Your task to perform on an android device: Is it going to rain this weekend? Image 0: 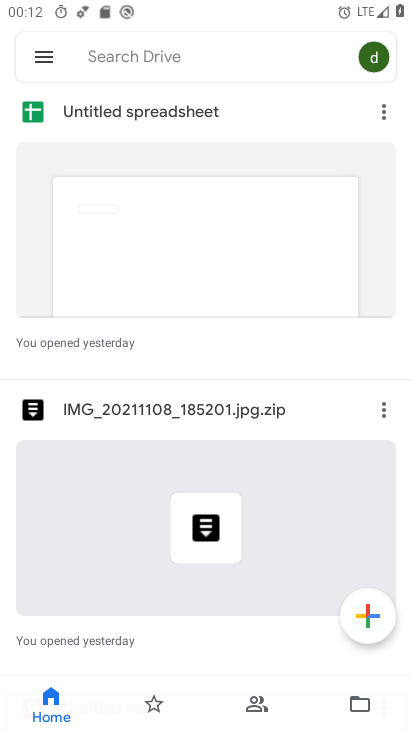
Step 0: press back button
Your task to perform on an android device: Is it going to rain this weekend? Image 1: 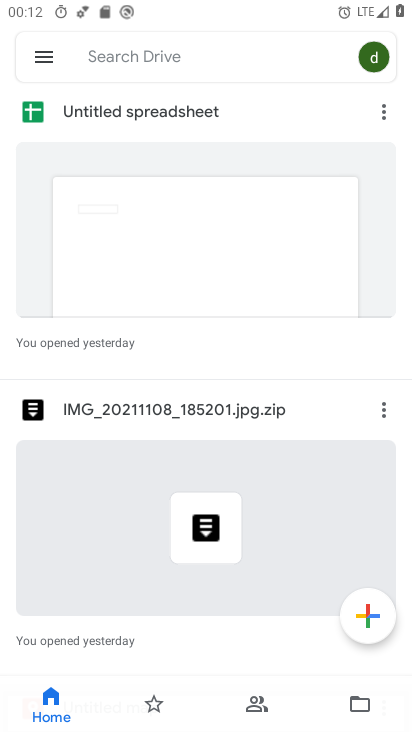
Step 1: press back button
Your task to perform on an android device: Is it going to rain this weekend? Image 2: 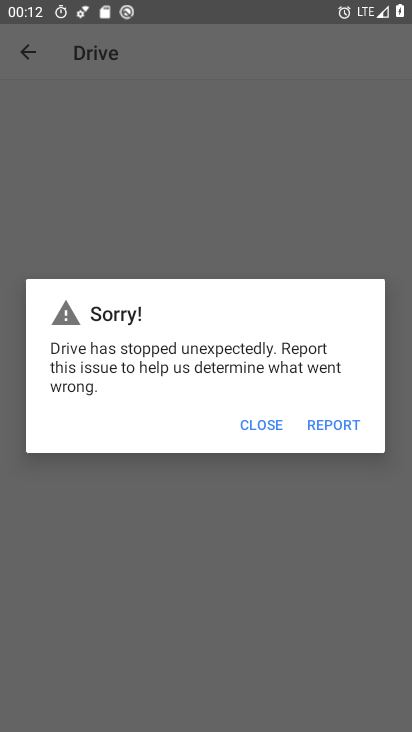
Step 2: press back button
Your task to perform on an android device: Is it going to rain this weekend? Image 3: 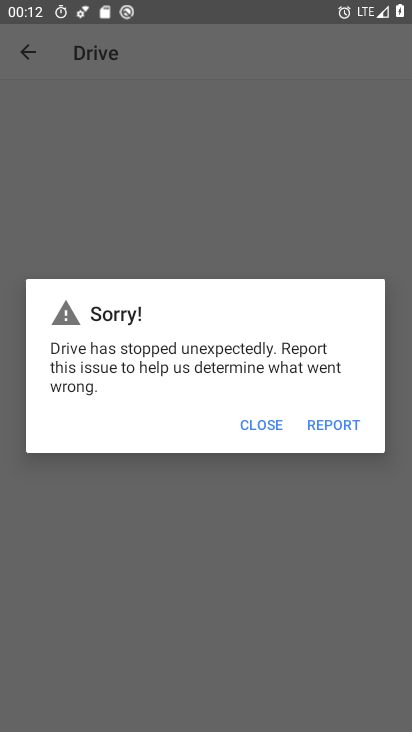
Step 3: press back button
Your task to perform on an android device: Is it going to rain this weekend? Image 4: 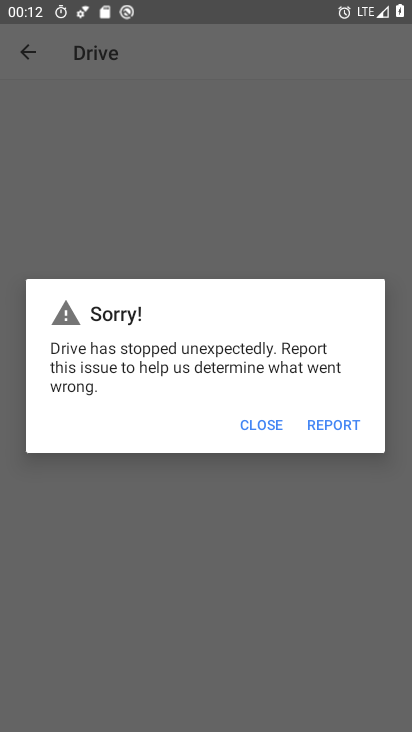
Step 4: press back button
Your task to perform on an android device: Is it going to rain this weekend? Image 5: 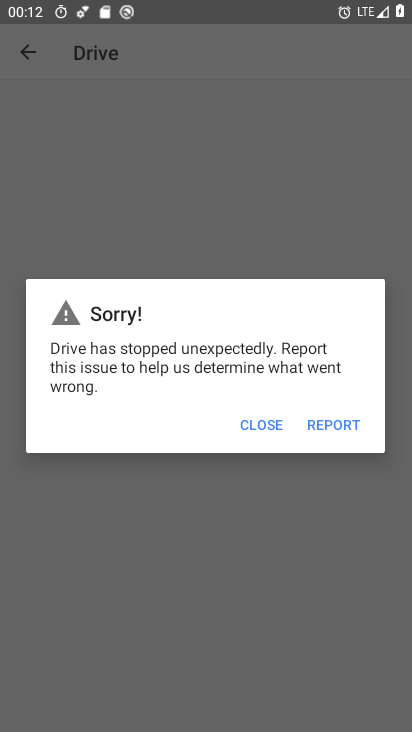
Step 5: click (266, 423)
Your task to perform on an android device: Is it going to rain this weekend? Image 6: 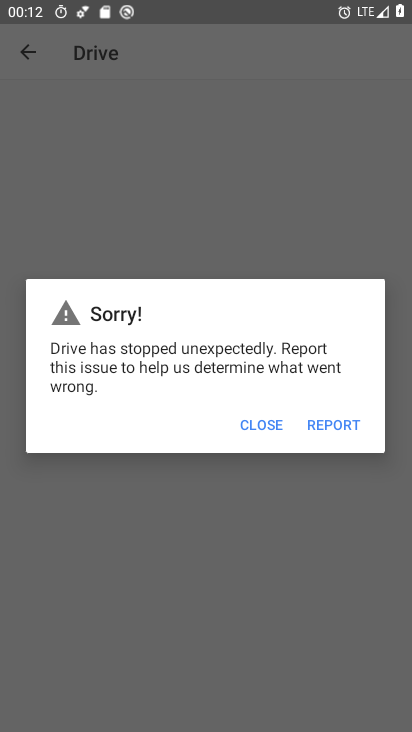
Step 6: click (266, 423)
Your task to perform on an android device: Is it going to rain this weekend? Image 7: 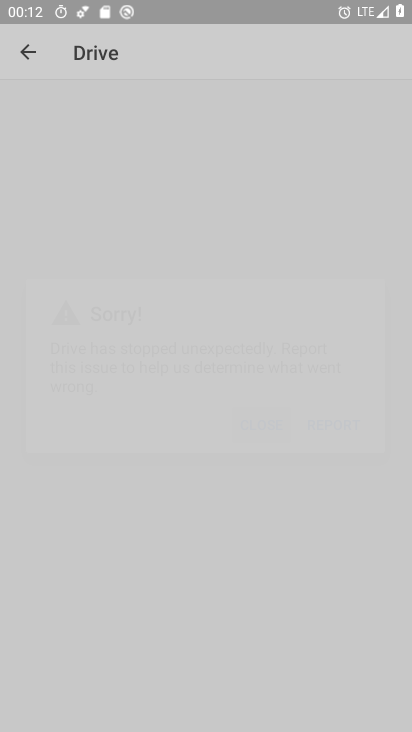
Step 7: click (266, 424)
Your task to perform on an android device: Is it going to rain this weekend? Image 8: 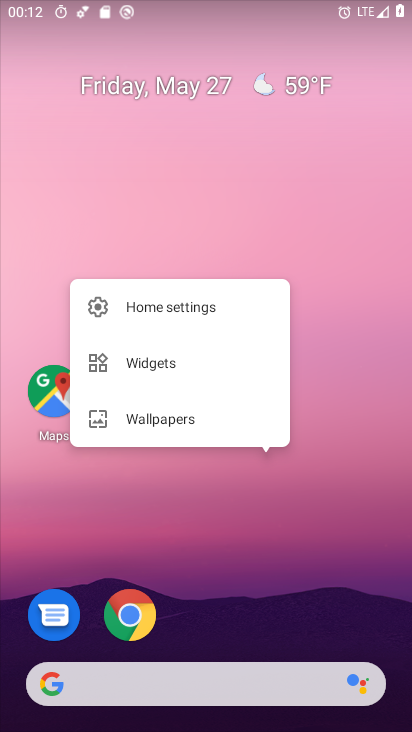
Step 8: drag from (260, 631) to (207, 115)
Your task to perform on an android device: Is it going to rain this weekend? Image 9: 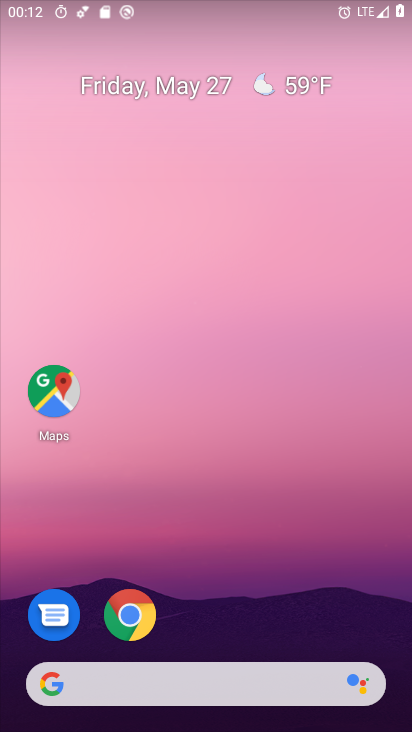
Step 9: drag from (369, 375) to (320, 412)
Your task to perform on an android device: Is it going to rain this weekend? Image 10: 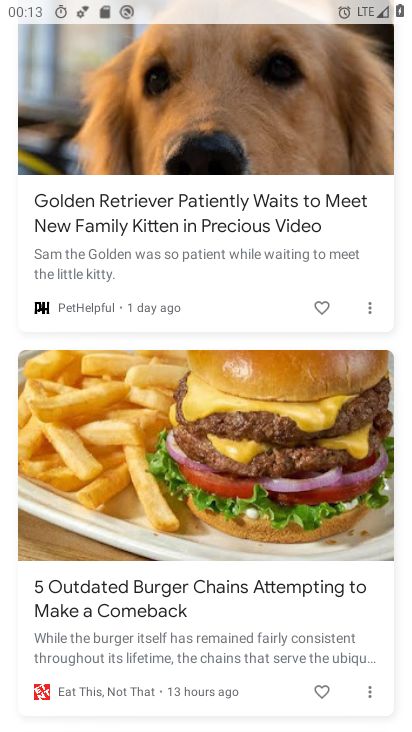
Step 10: click (144, 501)
Your task to perform on an android device: Is it going to rain this weekend? Image 11: 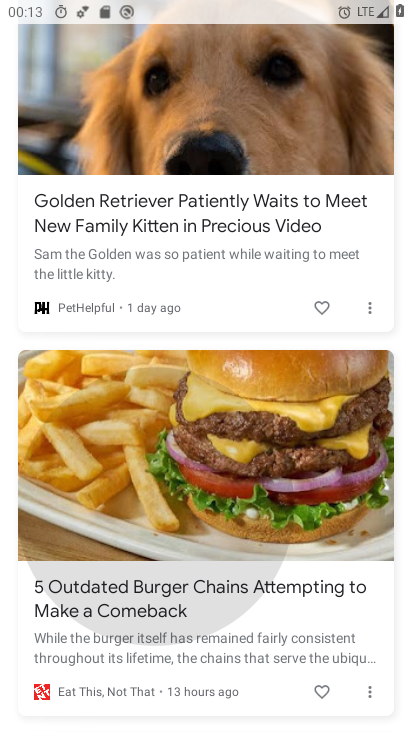
Step 11: drag from (100, 208) to (165, 527)
Your task to perform on an android device: Is it going to rain this weekend? Image 12: 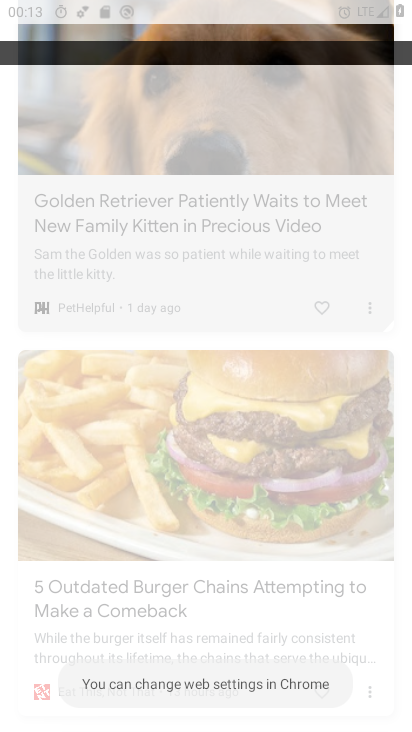
Step 12: click (212, 486)
Your task to perform on an android device: Is it going to rain this weekend? Image 13: 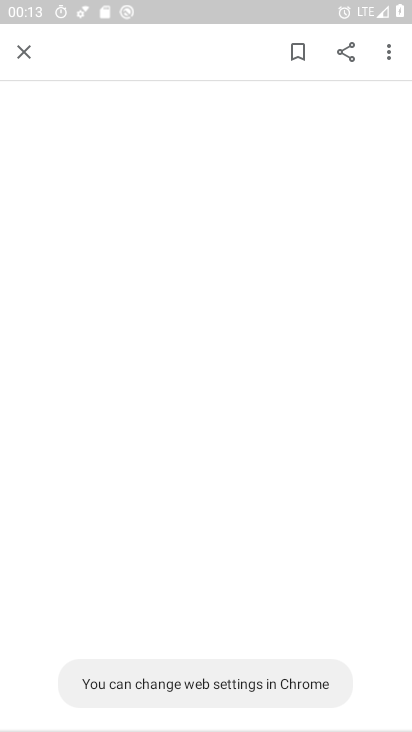
Step 13: drag from (165, 411) to (159, 465)
Your task to perform on an android device: Is it going to rain this weekend? Image 14: 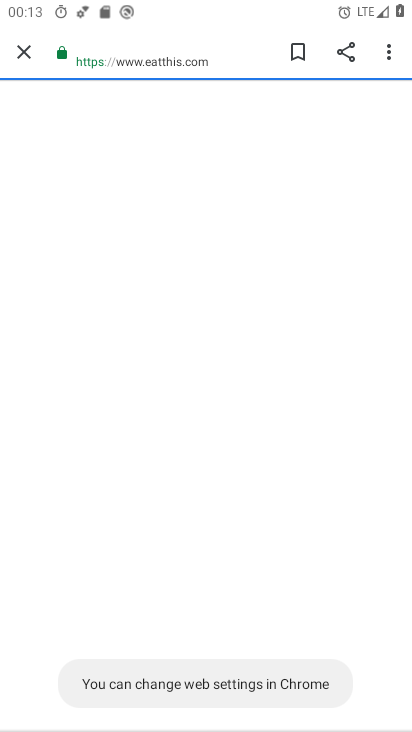
Step 14: drag from (208, 491) to (85, 410)
Your task to perform on an android device: Is it going to rain this weekend? Image 15: 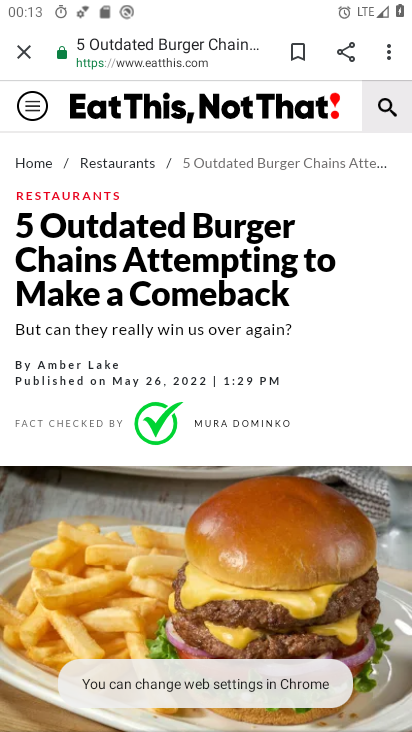
Step 15: click (26, 48)
Your task to perform on an android device: Is it going to rain this weekend? Image 16: 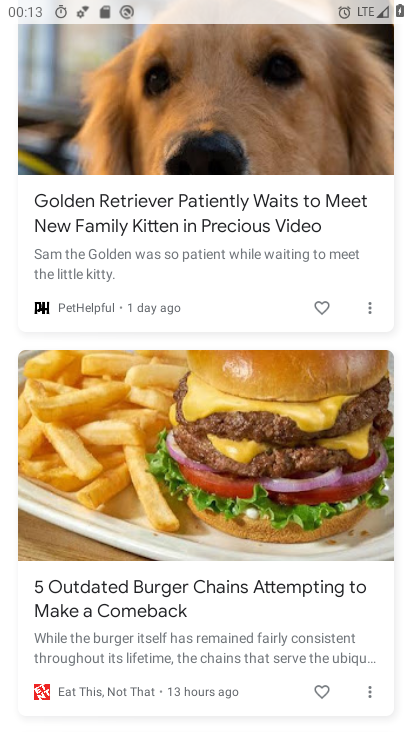
Step 16: drag from (208, 147) to (220, 423)
Your task to perform on an android device: Is it going to rain this weekend? Image 17: 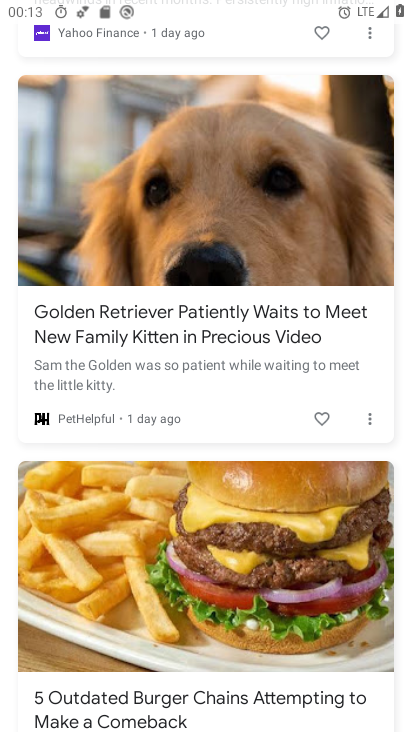
Step 17: drag from (165, 344) to (188, 478)
Your task to perform on an android device: Is it going to rain this weekend? Image 18: 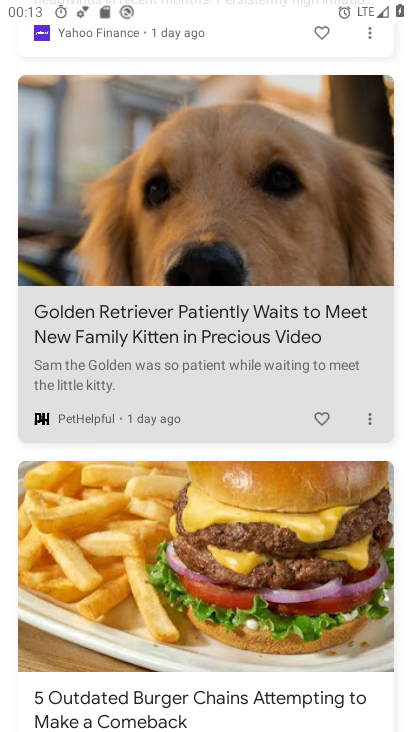
Step 18: drag from (227, 577) to (180, 635)
Your task to perform on an android device: Is it going to rain this weekend? Image 19: 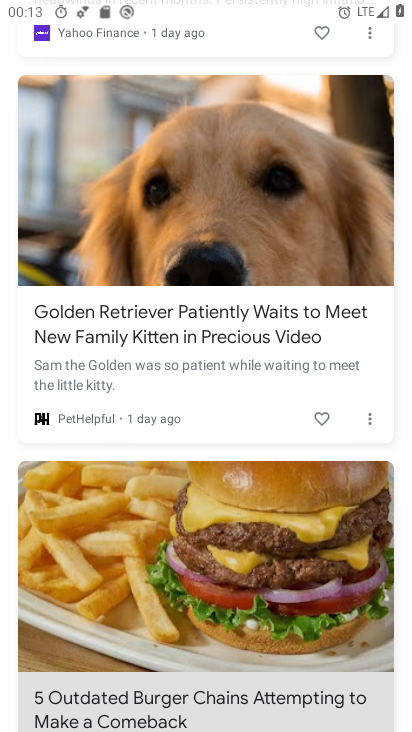
Step 19: drag from (141, 172) to (210, 513)
Your task to perform on an android device: Is it going to rain this weekend? Image 20: 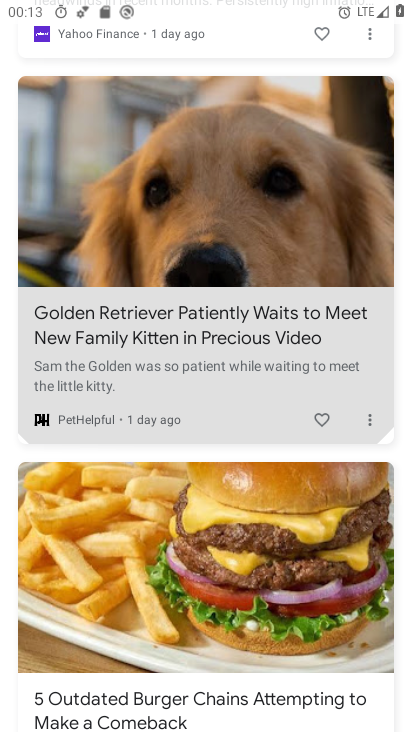
Step 20: drag from (261, 463) to (272, 567)
Your task to perform on an android device: Is it going to rain this weekend? Image 21: 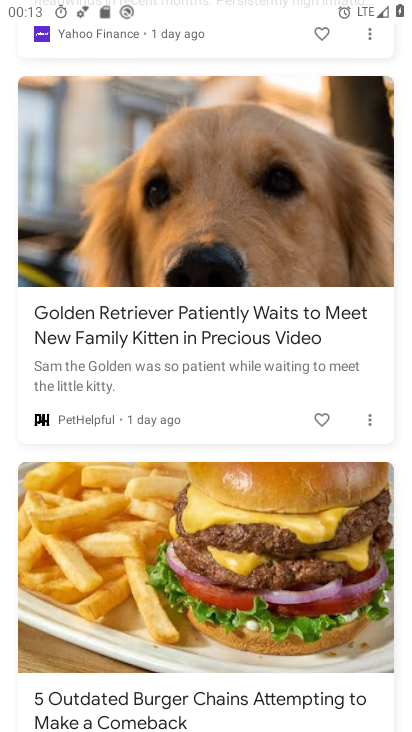
Step 21: drag from (115, 184) to (211, 535)
Your task to perform on an android device: Is it going to rain this weekend? Image 22: 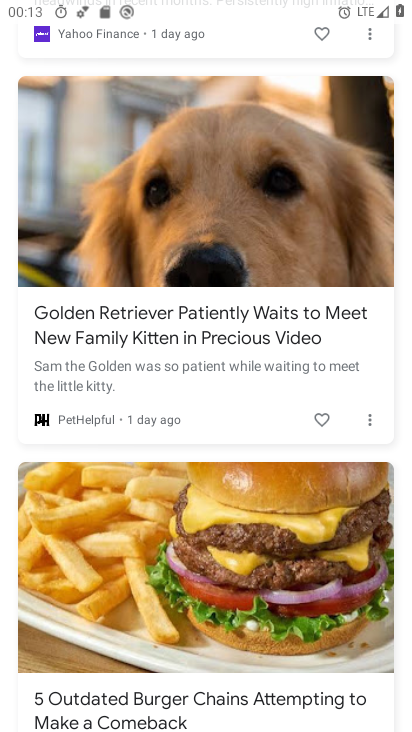
Step 22: drag from (161, 381) to (129, 546)
Your task to perform on an android device: Is it going to rain this weekend? Image 23: 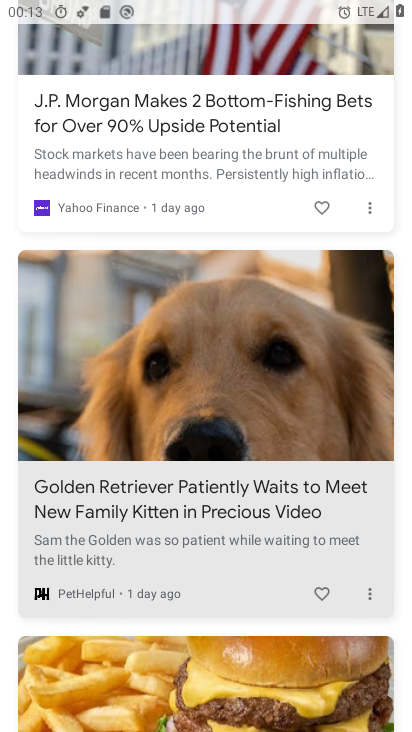
Step 23: click (176, 481)
Your task to perform on an android device: Is it going to rain this weekend? Image 24: 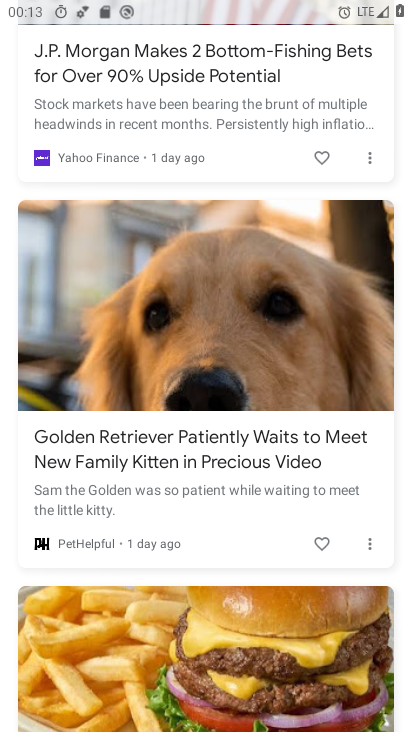
Step 24: click (278, 481)
Your task to perform on an android device: Is it going to rain this weekend? Image 25: 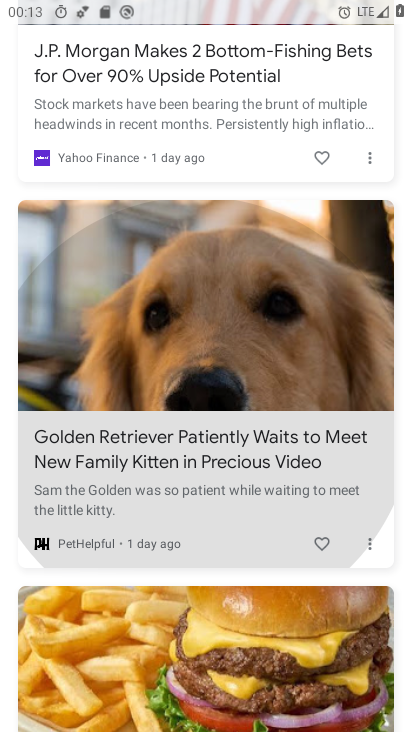
Step 25: drag from (243, 496) to (196, 545)
Your task to perform on an android device: Is it going to rain this weekend? Image 26: 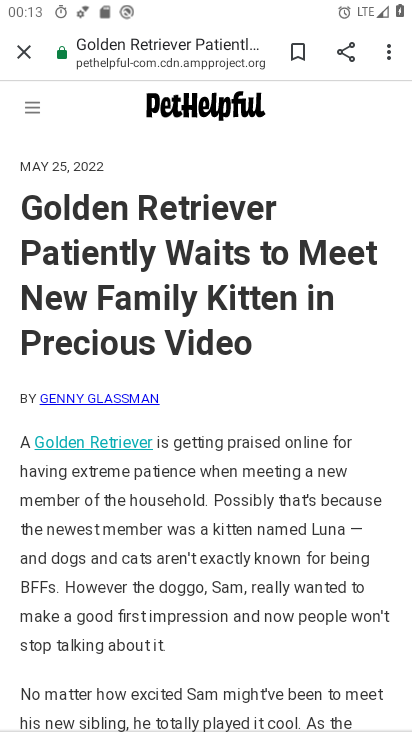
Step 26: drag from (206, 86) to (164, 371)
Your task to perform on an android device: Is it going to rain this weekend? Image 27: 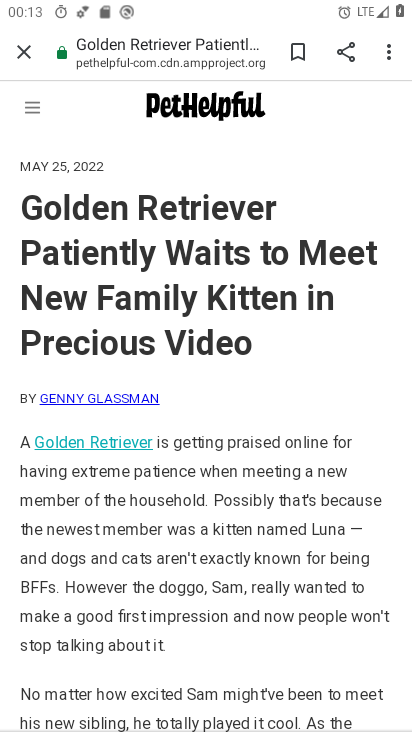
Step 27: click (23, 53)
Your task to perform on an android device: Is it going to rain this weekend? Image 28: 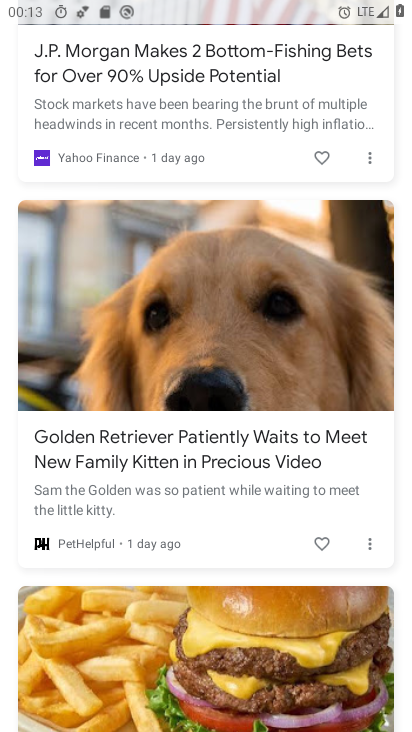
Step 28: press back button
Your task to perform on an android device: Is it going to rain this weekend? Image 29: 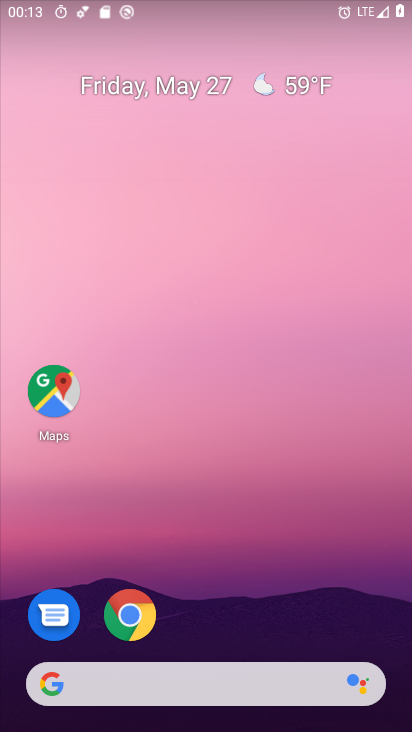
Step 29: drag from (3, 178) to (380, 479)
Your task to perform on an android device: Is it going to rain this weekend? Image 30: 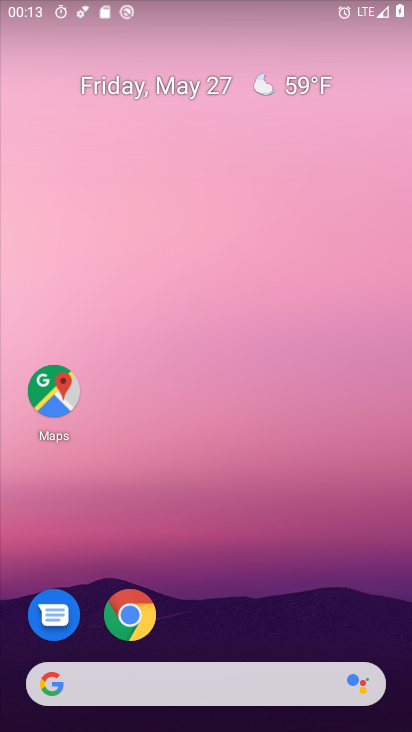
Step 30: drag from (12, 157) to (283, 365)
Your task to perform on an android device: Is it going to rain this weekend? Image 31: 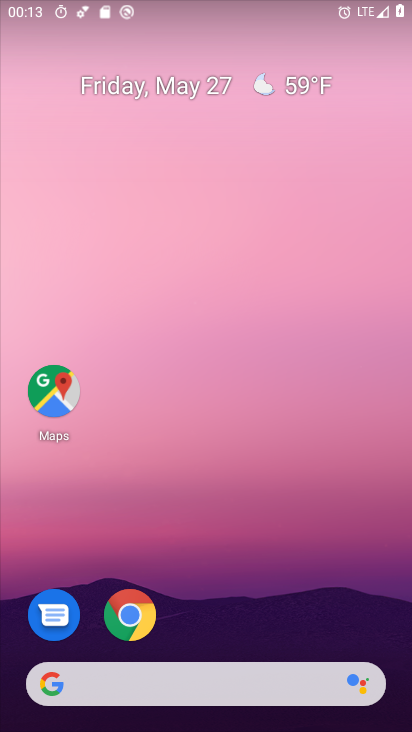
Step 31: drag from (33, 142) to (287, 342)
Your task to perform on an android device: Is it going to rain this weekend? Image 32: 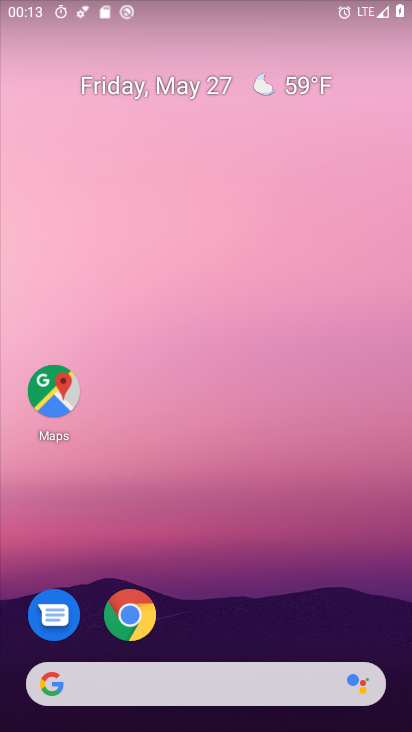
Step 32: drag from (3, 143) to (358, 330)
Your task to perform on an android device: Is it going to rain this weekend? Image 33: 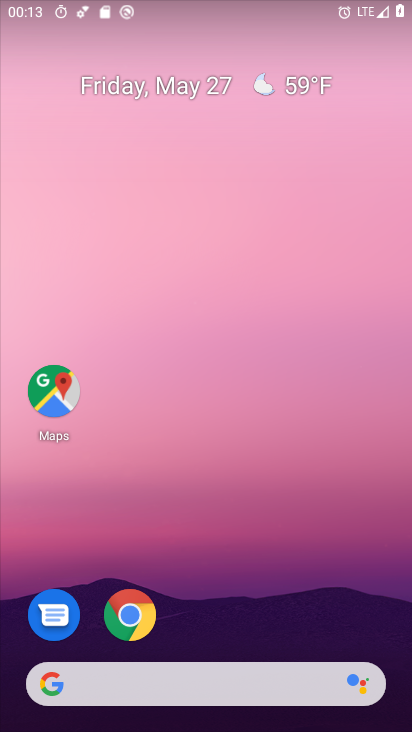
Step 33: drag from (17, 148) to (404, 362)
Your task to perform on an android device: Is it going to rain this weekend? Image 34: 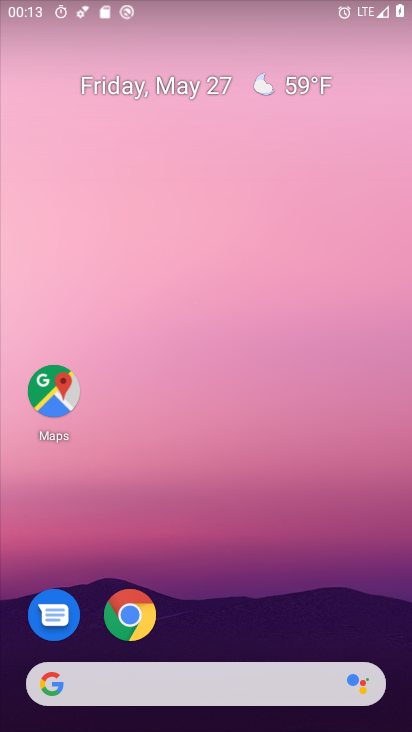
Step 34: drag from (44, 161) to (411, 366)
Your task to perform on an android device: Is it going to rain this weekend? Image 35: 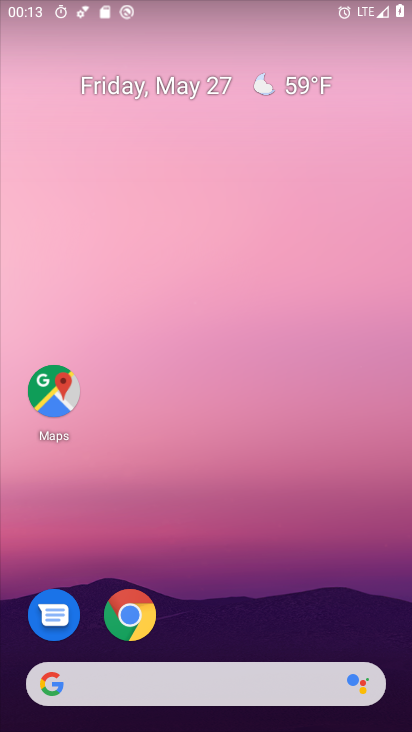
Step 35: drag from (53, 181) to (400, 287)
Your task to perform on an android device: Is it going to rain this weekend? Image 36: 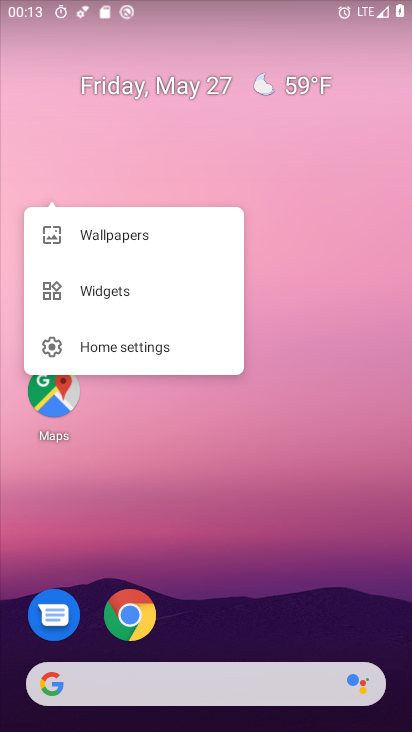
Step 36: click (220, 156)
Your task to perform on an android device: Is it going to rain this weekend? Image 37: 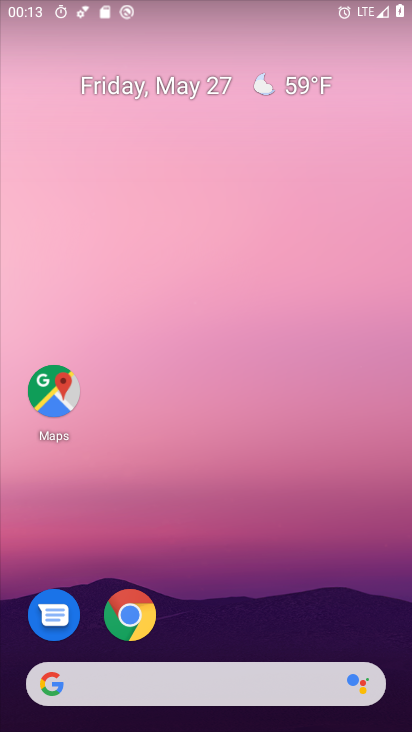
Step 37: drag from (228, 169) to (279, 83)
Your task to perform on an android device: Is it going to rain this weekend? Image 38: 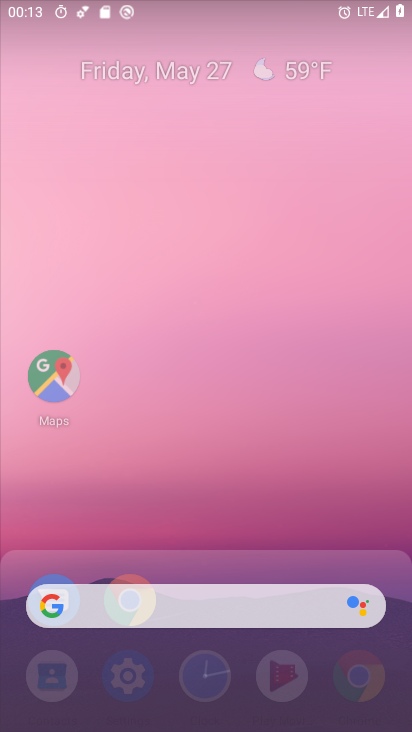
Step 38: click (279, 83)
Your task to perform on an android device: Is it going to rain this weekend? Image 39: 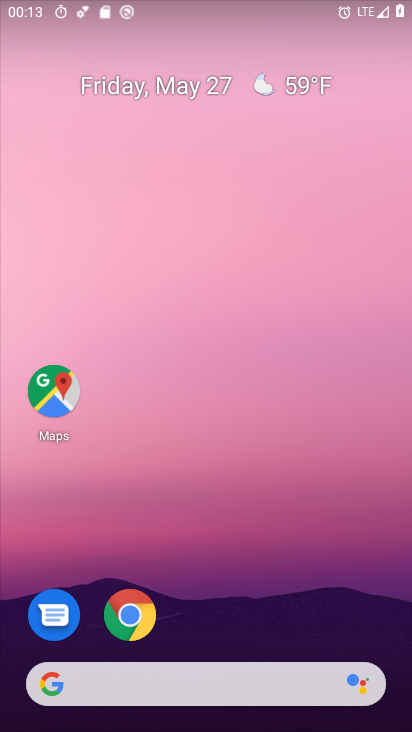
Step 39: click (279, 83)
Your task to perform on an android device: Is it going to rain this weekend? Image 40: 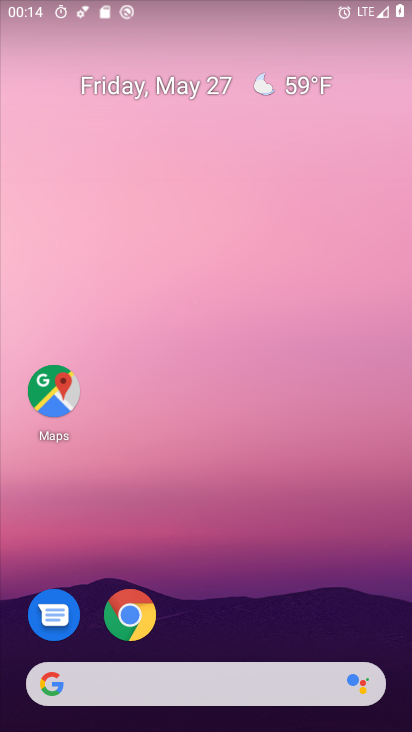
Step 40: click (278, 82)
Your task to perform on an android device: Is it going to rain this weekend? Image 41: 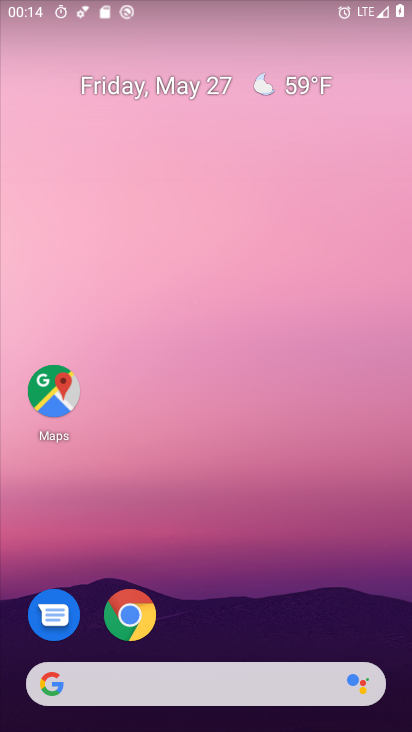
Step 41: click (271, 84)
Your task to perform on an android device: Is it going to rain this weekend? Image 42: 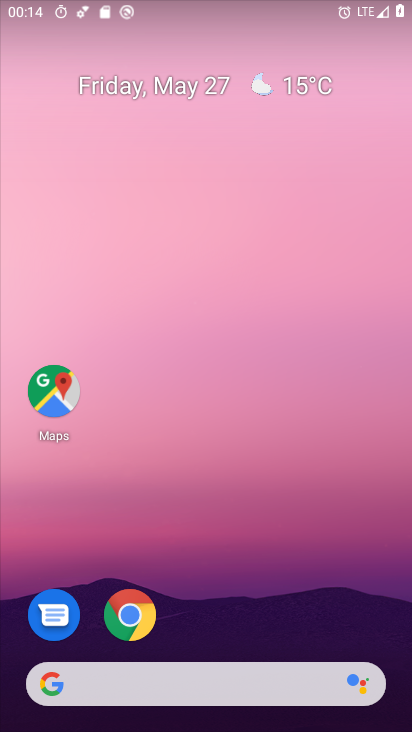
Step 42: click (271, 84)
Your task to perform on an android device: Is it going to rain this weekend? Image 43: 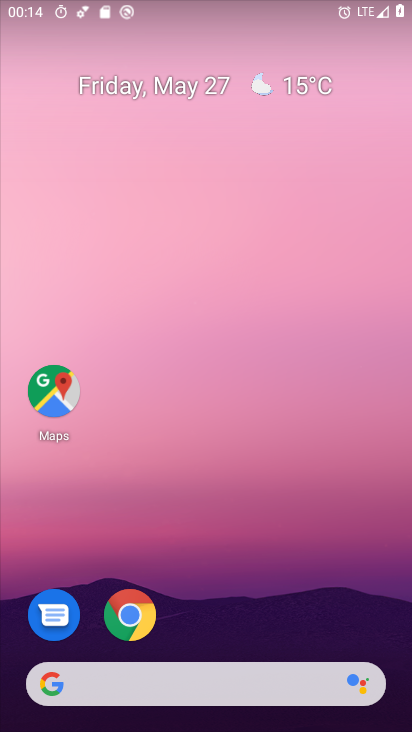
Step 43: click (270, 87)
Your task to perform on an android device: Is it going to rain this weekend? Image 44: 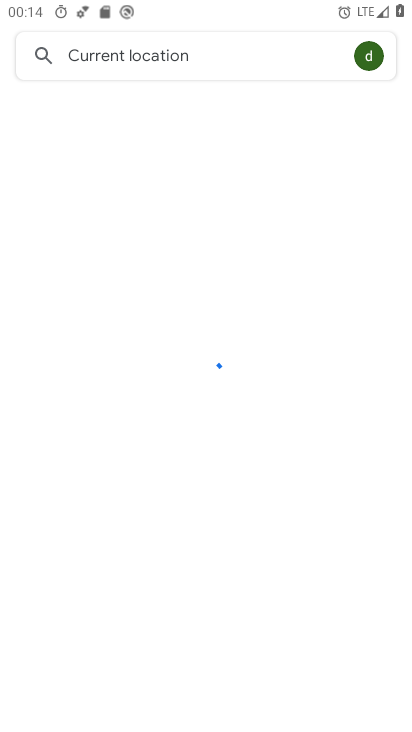
Step 44: click (270, 87)
Your task to perform on an android device: Is it going to rain this weekend? Image 45: 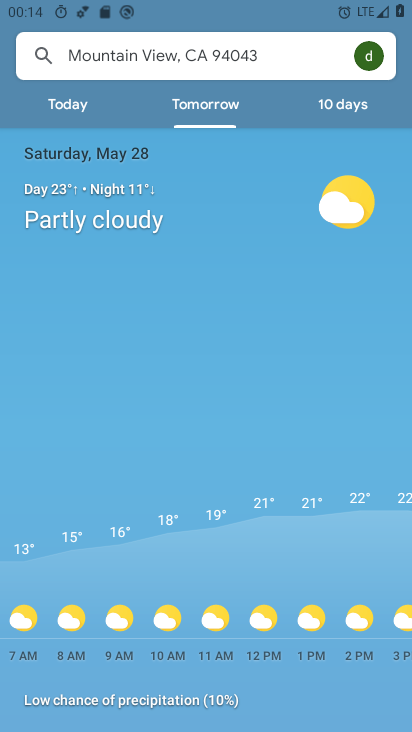
Step 45: click (137, 140)
Your task to perform on an android device: Is it going to rain this weekend? Image 46: 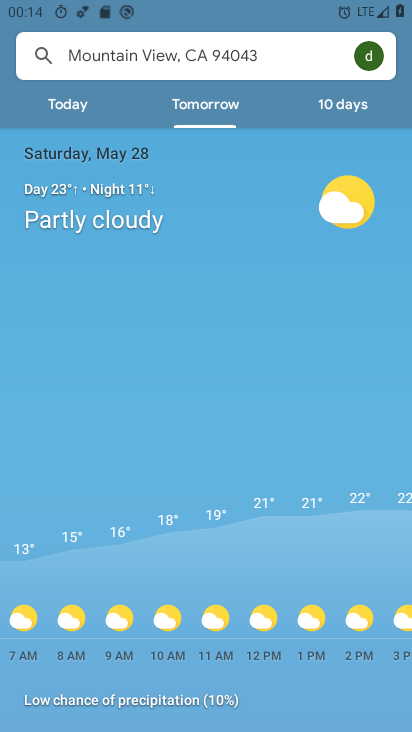
Step 46: click (102, 327)
Your task to perform on an android device: Is it going to rain this weekend? Image 47: 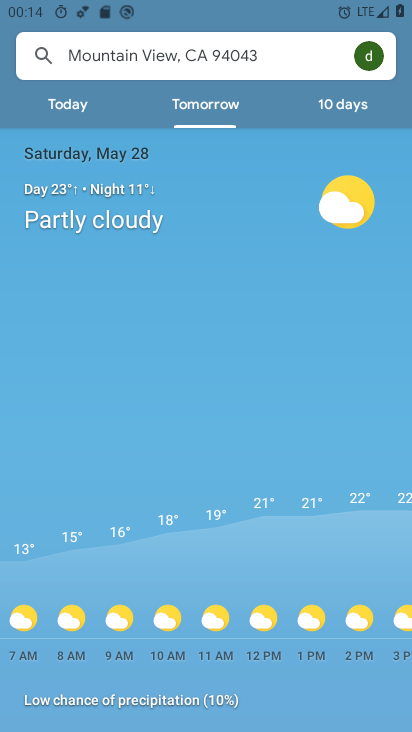
Step 47: drag from (164, 402) to (132, 250)
Your task to perform on an android device: Is it going to rain this weekend? Image 48: 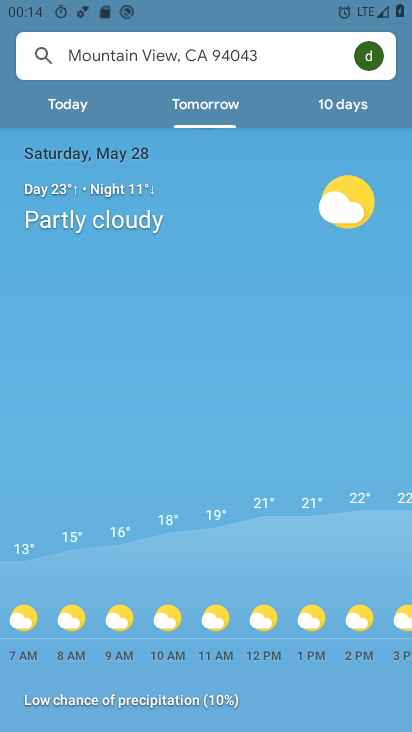
Step 48: drag from (193, 450) to (193, 137)
Your task to perform on an android device: Is it going to rain this weekend? Image 49: 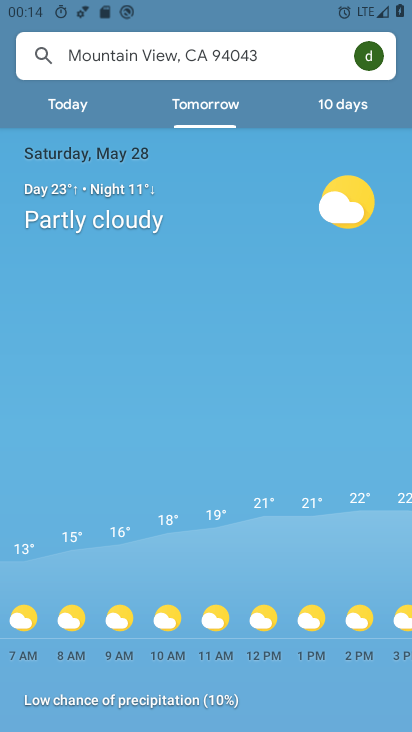
Step 49: click (196, 146)
Your task to perform on an android device: Is it going to rain this weekend? Image 50: 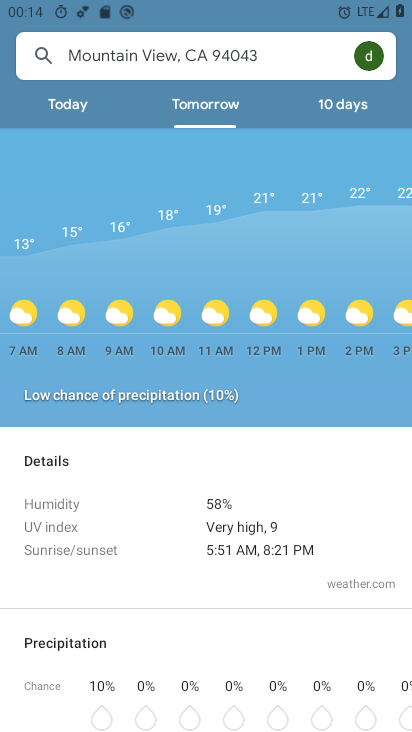
Step 50: task complete